Your task to perform on an android device: Search for "macbook air" on newegg, select the first entry, and add it to the cart. Image 0: 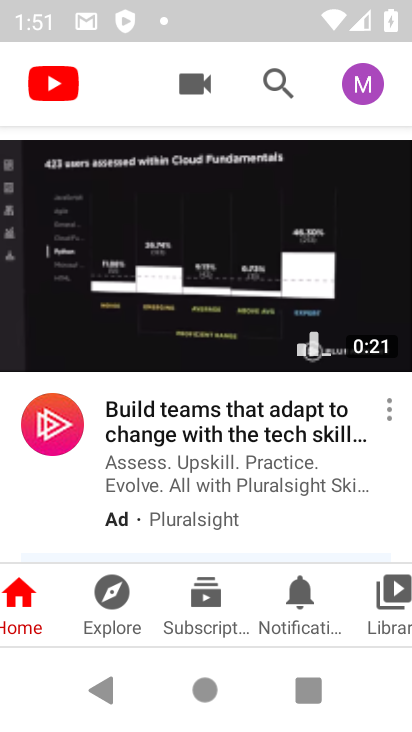
Step 0: press home button
Your task to perform on an android device: Search for "macbook air" on newegg, select the first entry, and add it to the cart. Image 1: 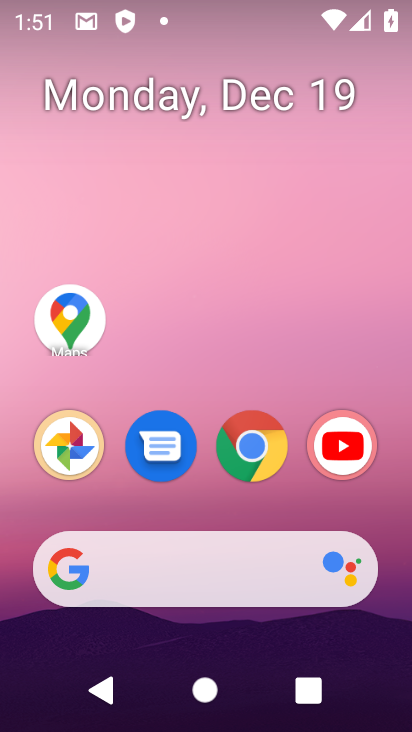
Step 1: click (243, 461)
Your task to perform on an android device: Search for "macbook air" on newegg, select the first entry, and add it to the cart. Image 2: 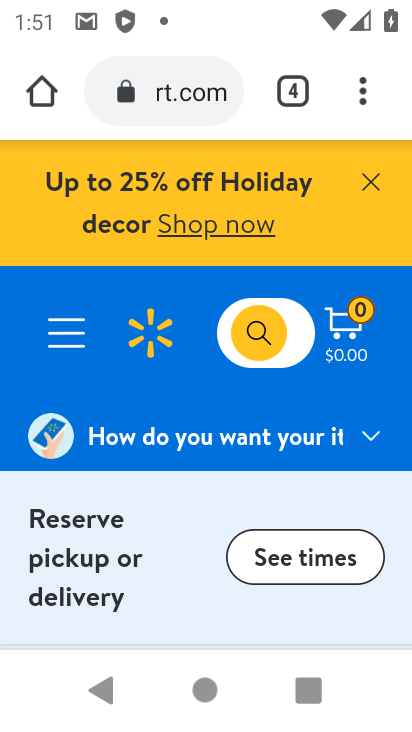
Step 2: click (169, 115)
Your task to perform on an android device: Search for "macbook air" on newegg, select the first entry, and add it to the cart. Image 3: 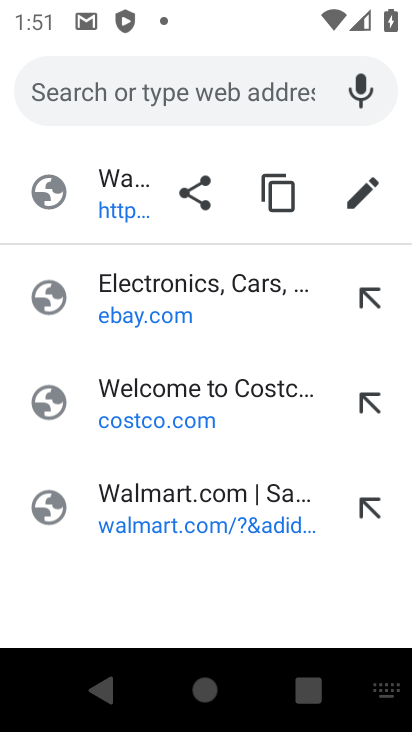
Step 3: type "newegg"
Your task to perform on an android device: Search for "macbook air" on newegg, select the first entry, and add it to the cart. Image 4: 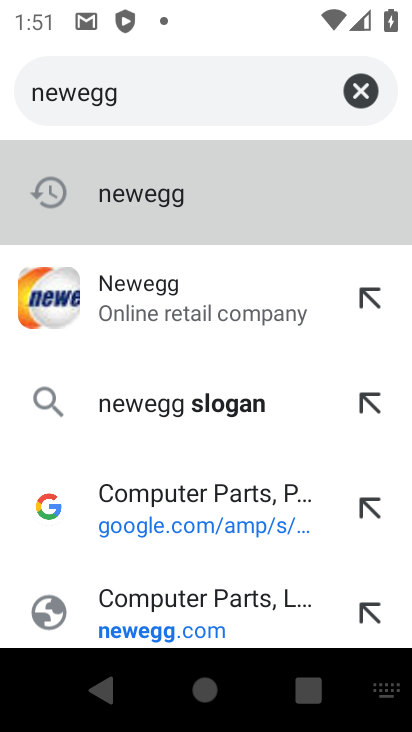
Step 4: click (144, 314)
Your task to perform on an android device: Search for "macbook air" on newegg, select the first entry, and add it to the cart. Image 5: 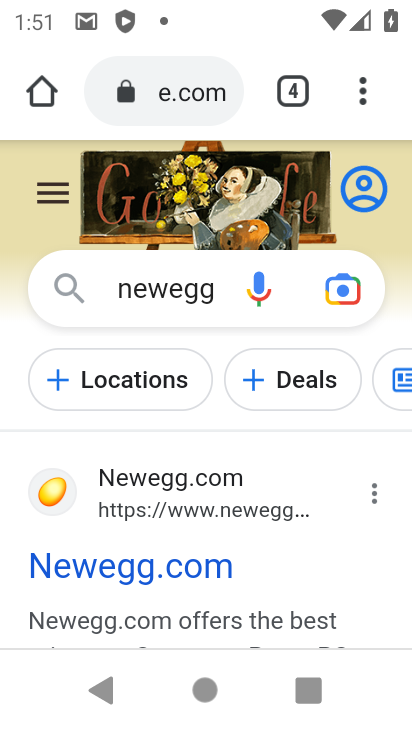
Step 5: click (153, 571)
Your task to perform on an android device: Search for "macbook air" on newegg, select the first entry, and add it to the cart. Image 6: 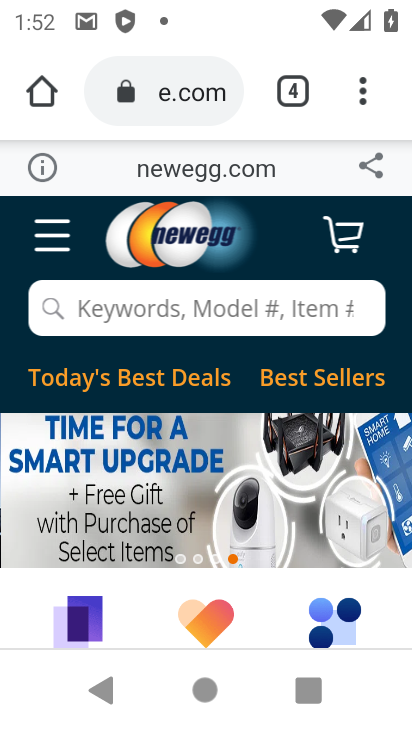
Step 6: click (263, 318)
Your task to perform on an android device: Search for "macbook air" on newegg, select the first entry, and add it to the cart. Image 7: 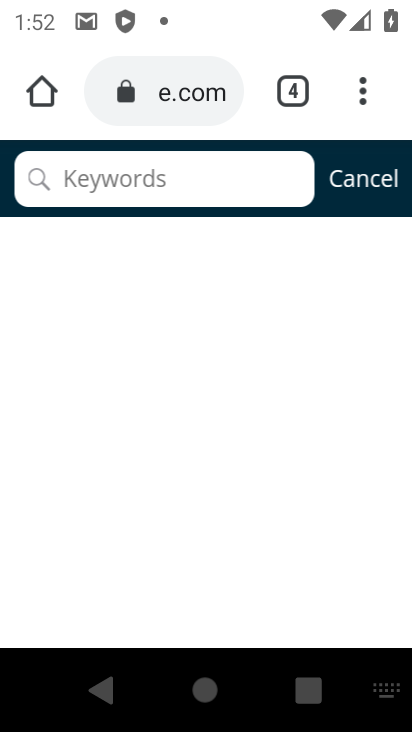
Step 7: type "macbook air"
Your task to perform on an android device: Search for "macbook air" on newegg, select the first entry, and add it to the cart. Image 8: 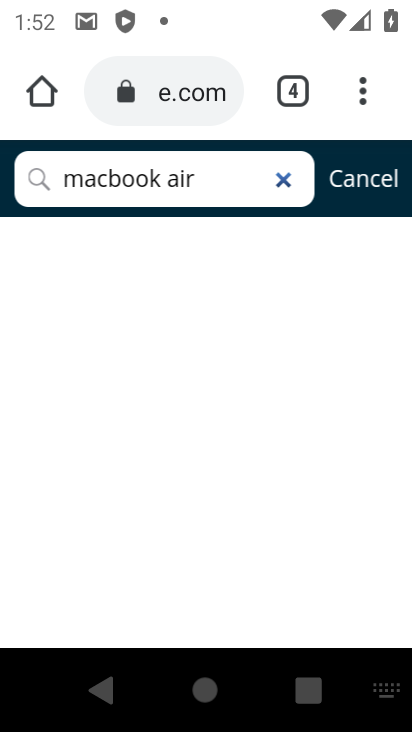
Step 8: task complete